Your task to perform on an android device: snooze an email in the gmail app Image 0: 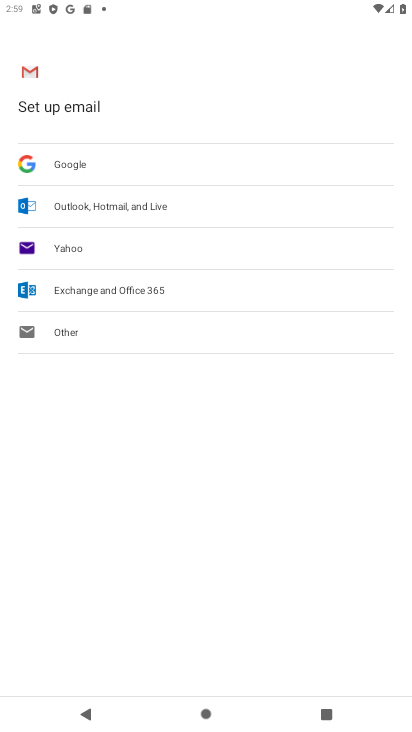
Step 0: press home button
Your task to perform on an android device: snooze an email in the gmail app Image 1: 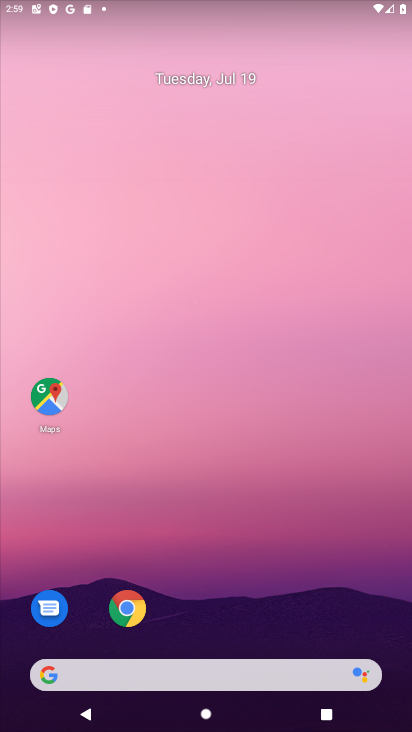
Step 1: drag from (248, 613) to (206, 57)
Your task to perform on an android device: snooze an email in the gmail app Image 2: 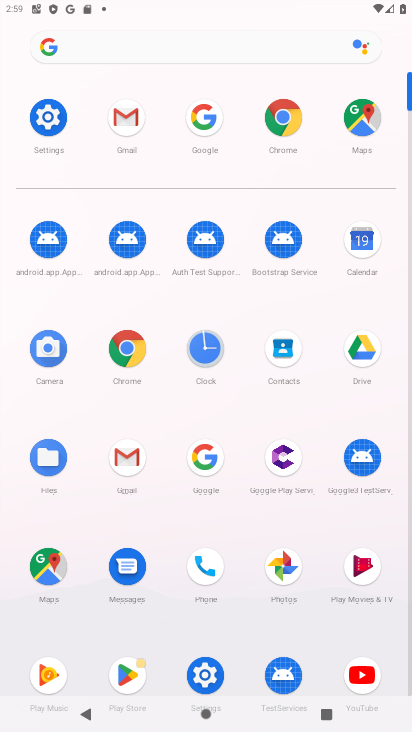
Step 2: click (124, 112)
Your task to perform on an android device: snooze an email in the gmail app Image 3: 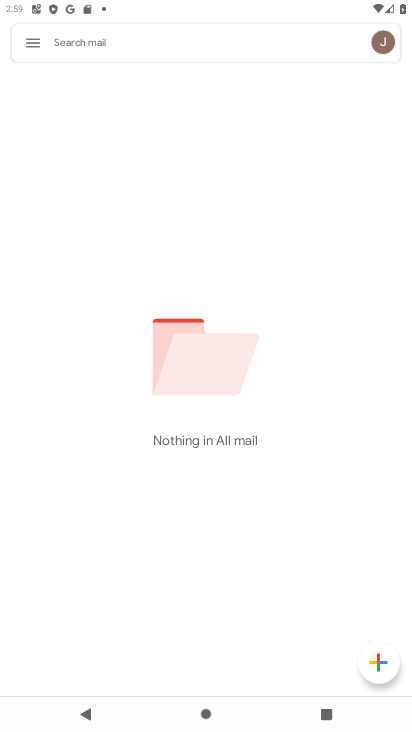
Step 3: click (37, 40)
Your task to perform on an android device: snooze an email in the gmail app Image 4: 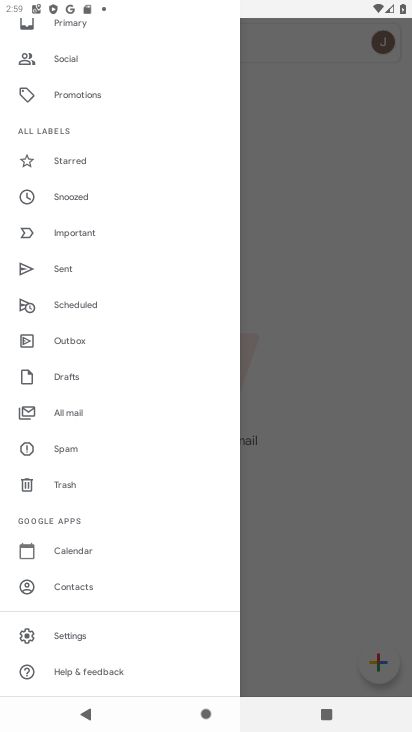
Step 4: task complete